Your task to perform on an android device: turn on notifications settings in the gmail app Image 0: 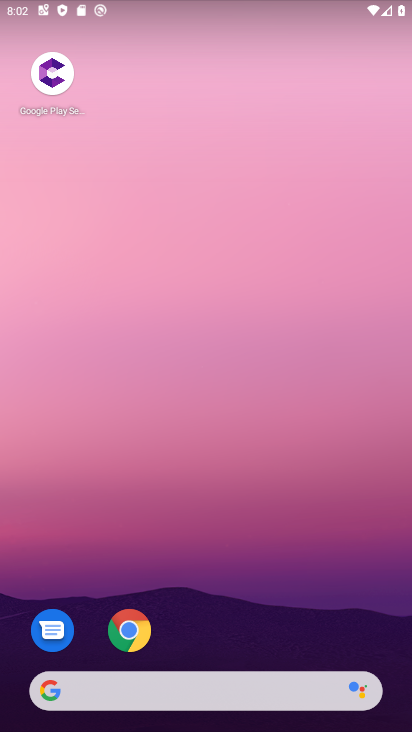
Step 0: drag from (324, 536) to (301, 4)
Your task to perform on an android device: turn on notifications settings in the gmail app Image 1: 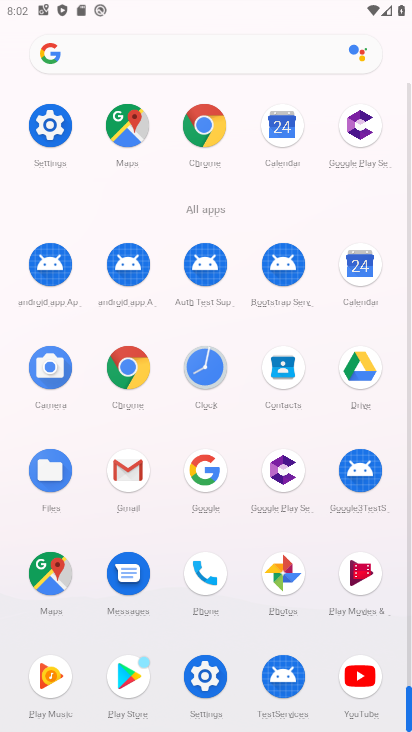
Step 1: drag from (9, 566) to (20, 251)
Your task to perform on an android device: turn on notifications settings in the gmail app Image 2: 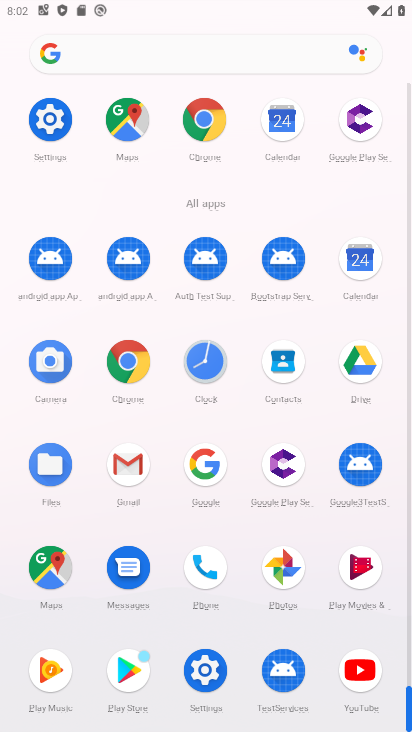
Step 2: click (128, 459)
Your task to perform on an android device: turn on notifications settings in the gmail app Image 3: 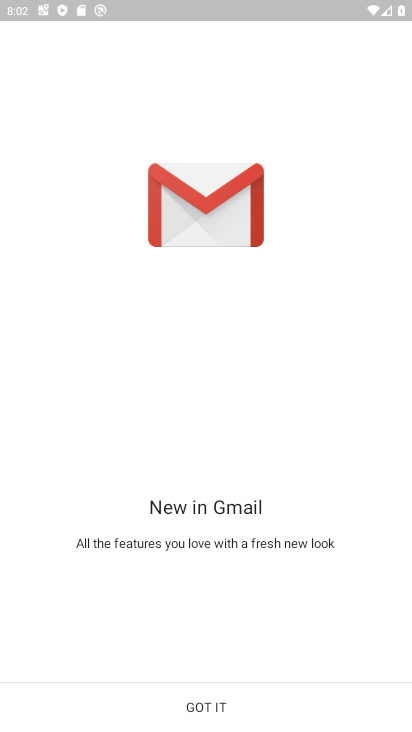
Step 3: click (196, 710)
Your task to perform on an android device: turn on notifications settings in the gmail app Image 4: 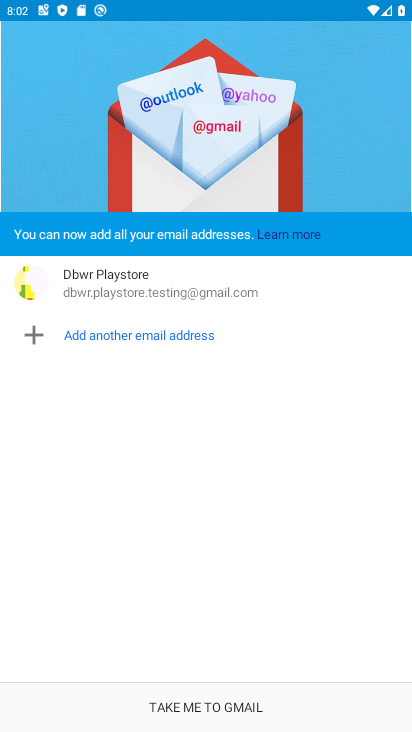
Step 4: click (196, 710)
Your task to perform on an android device: turn on notifications settings in the gmail app Image 5: 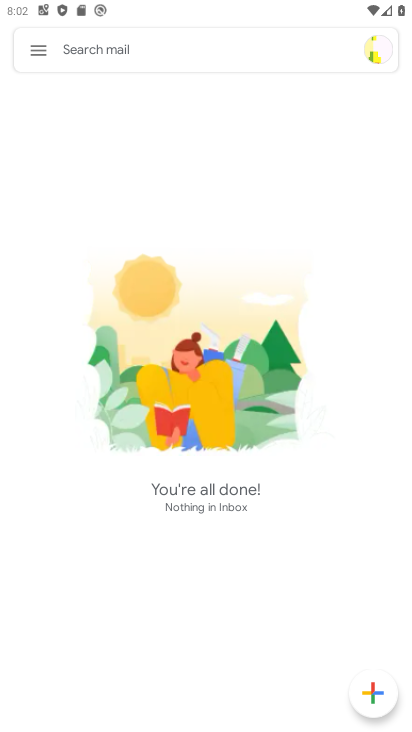
Step 5: click (46, 59)
Your task to perform on an android device: turn on notifications settings in the gmail app Image 6: 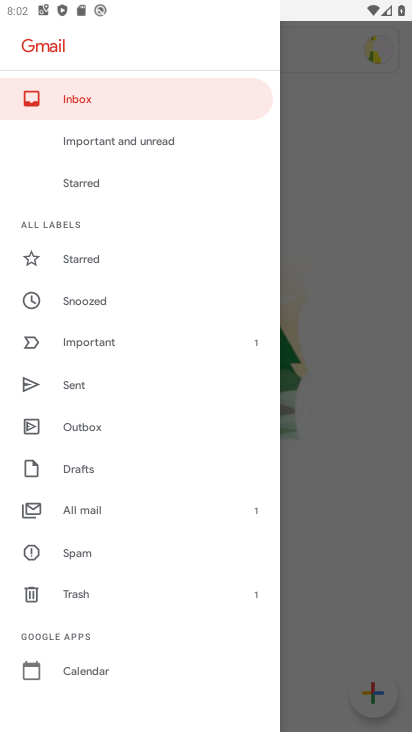
Step 6: drag from (137, 628) to (153, 150)
Your task to perform on an android device: turn on notifications settings in the gmail app Image 7: 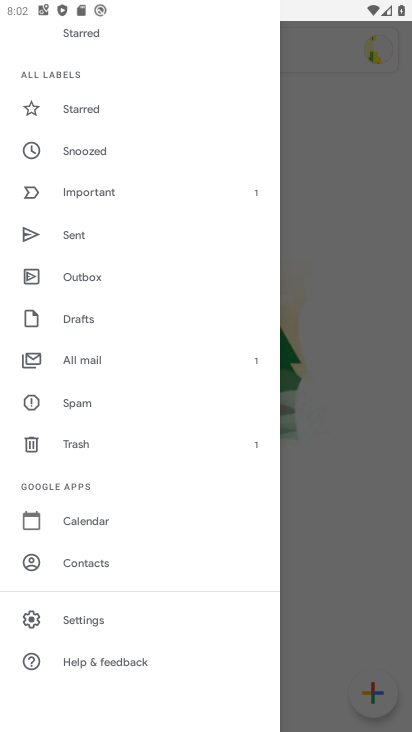
Step 7: click (91, 618)
Your task to perform on an android device: turn on notifications settings in the gmail app Image 8: 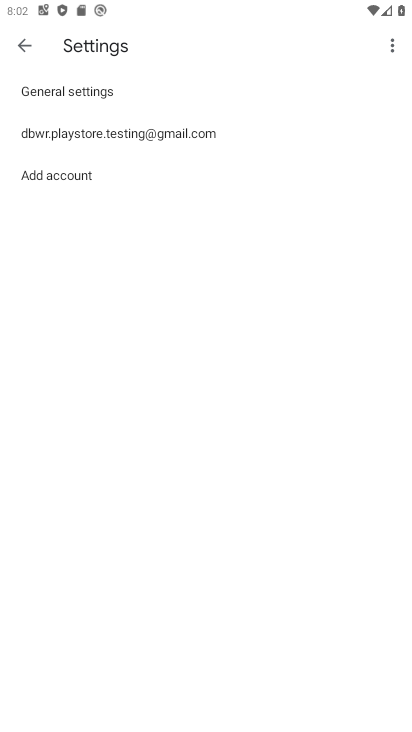
Step 8: click (95, 125)
Your task to perform on an android device: turn on notifications settings in the gmail app Image 9: 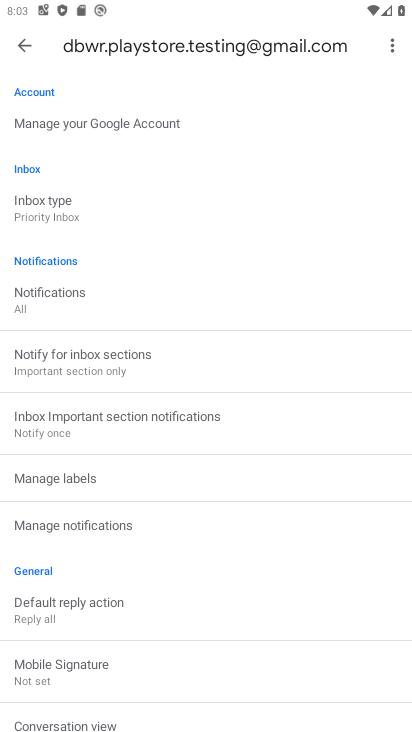
Step 9: drag from (214, 504) to (247, 193)
Your task to perform on an android device: turn on notifications settings in the gmail app Image 10: 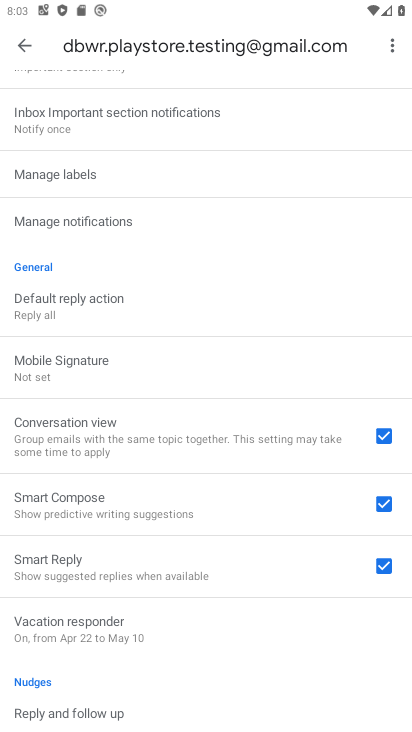
Step 10: click (105, 230)
Your task to perform on an android device: turn on notifications settings in the gmail app Image 11: 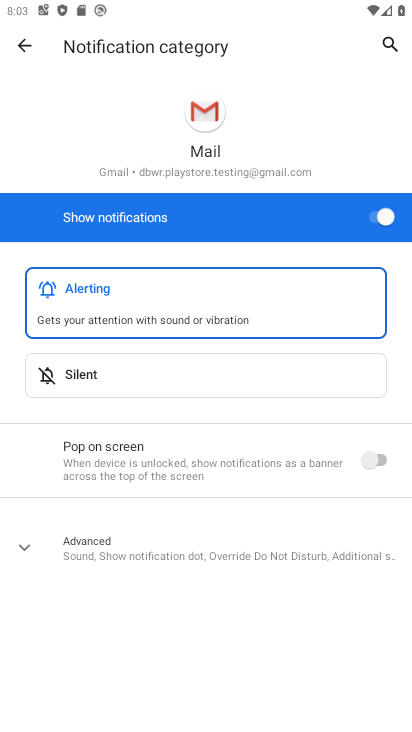
Step 11: task complete